Your task to perform on an android device: delete a single message in the gmail app Image 0: 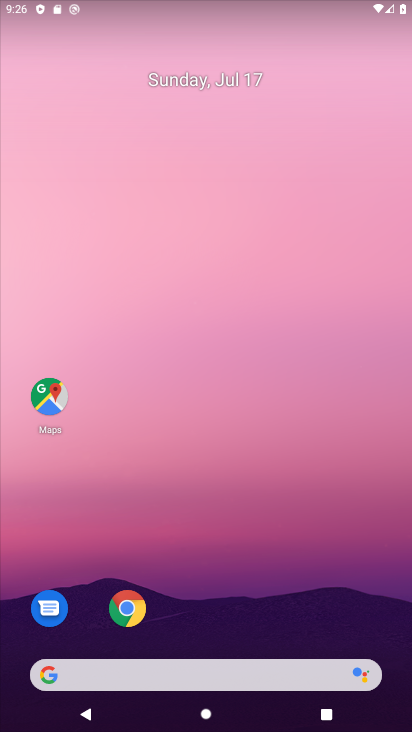
Step 0: drag from (269, 548) to (405, 115)
Your task to perform on an android device: delete a single message in the gmail app Image 1: 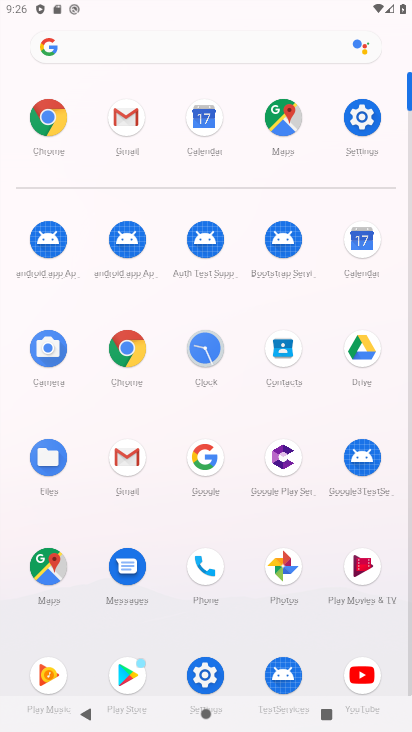
Step 1: click (122, 102)
Your task to perform on an android device: delete a single message in the gmail app Image 2: 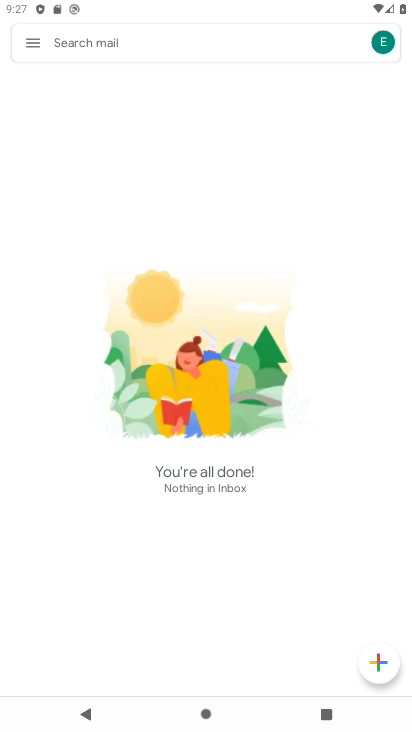
Step 2: task complete